Your task to perform on an android device: Go to Google maps Image 0: 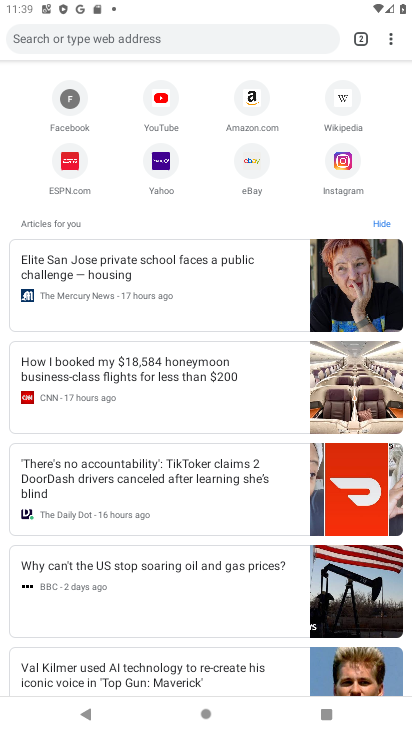
Step 0: press home button
Your task to perform on an android device: Go to Google maps Image 1: 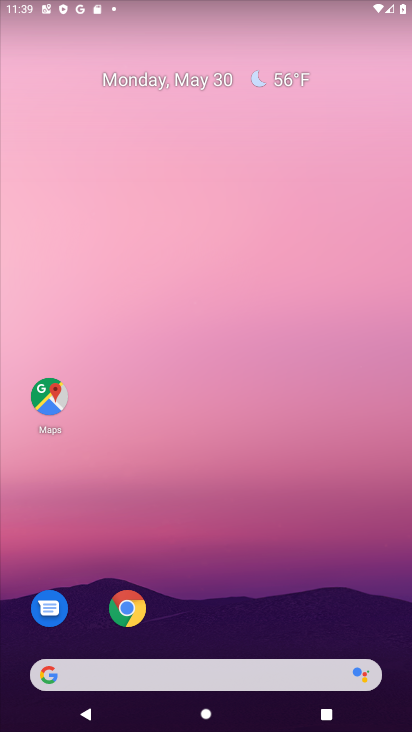
Step 1: click (52, 398)
Your task to perform on an android device: Go to Google maps Image 2: 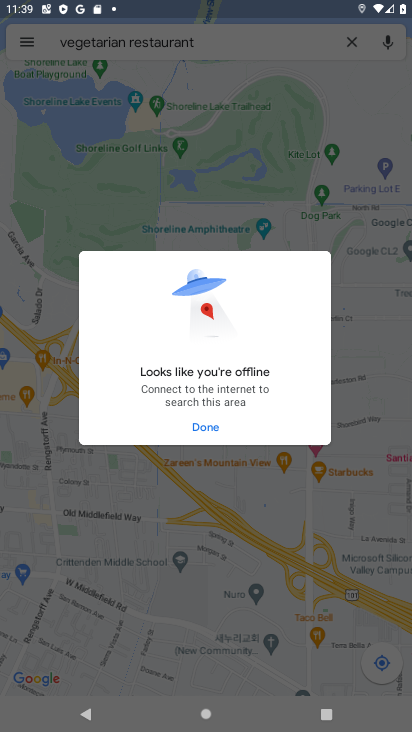
Step 2: press back button
Your task to perform on an android device: Go to Google maps Image 3: 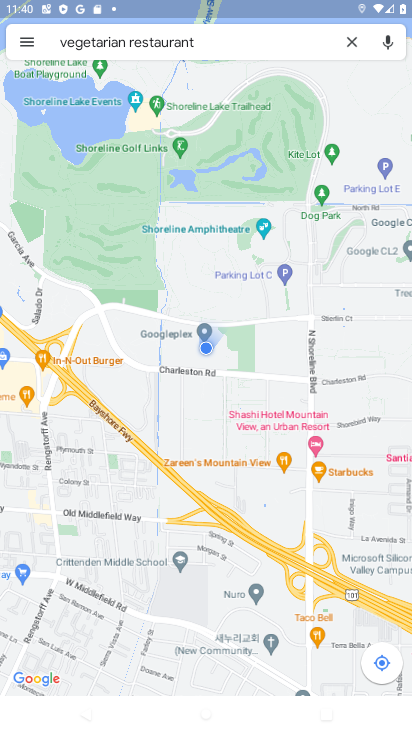
Step 3: press back button
Your task to perform on an android device: Go to Google maps Image 4: 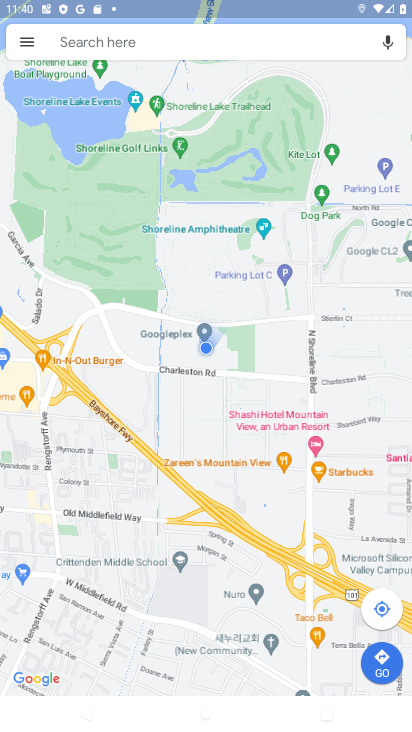
Step 4: press back button
Your task to perform on an android device: Go to Google maps Image 5: 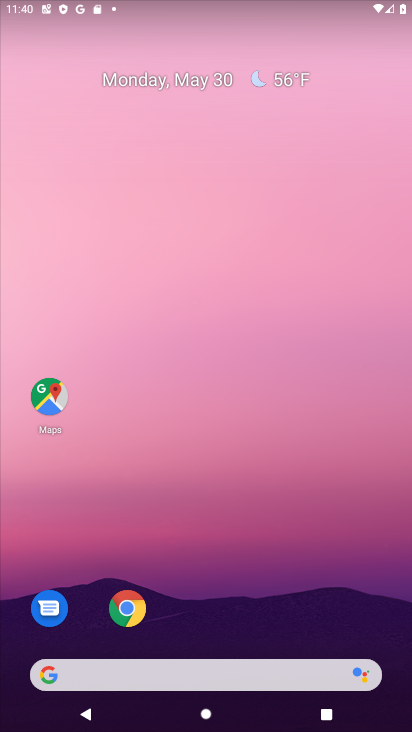
Step 5: click (51, 393)
Your task to perform on an android device: Go to Google maps Image 6: 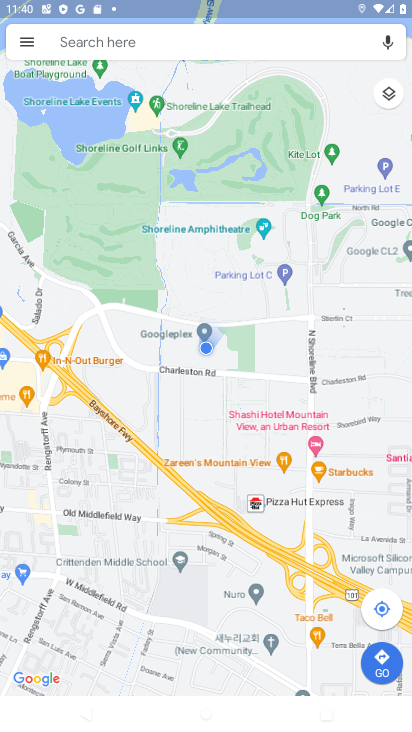
Step 6: task complete